Your task to perform on an android device: Do I have any events tomorrow? Image 0: 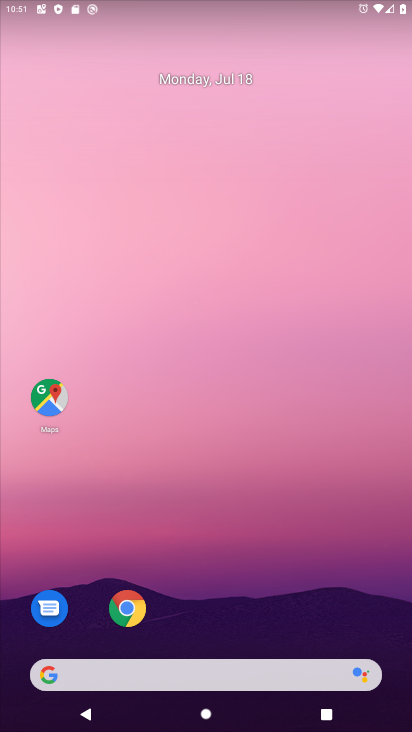
Step 0: drag from (263, 607) to (327, 188)
Your task to perform on an android device: Do I have any events tomorrow? Image 1: 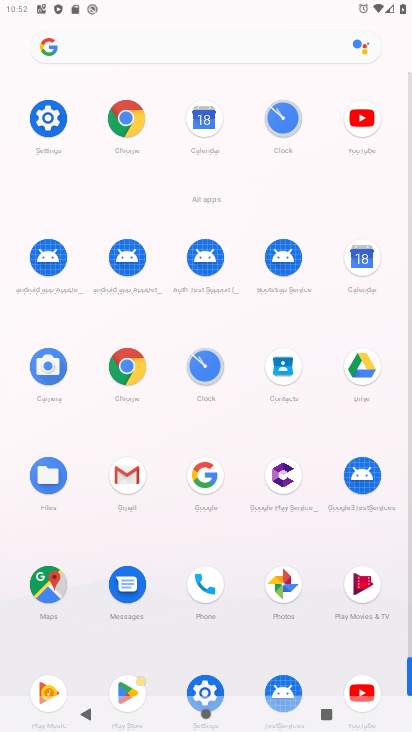
Step 1: click (371, 267)
Your task to perform on an android device: Do I have any events tomorrow? Image 2: 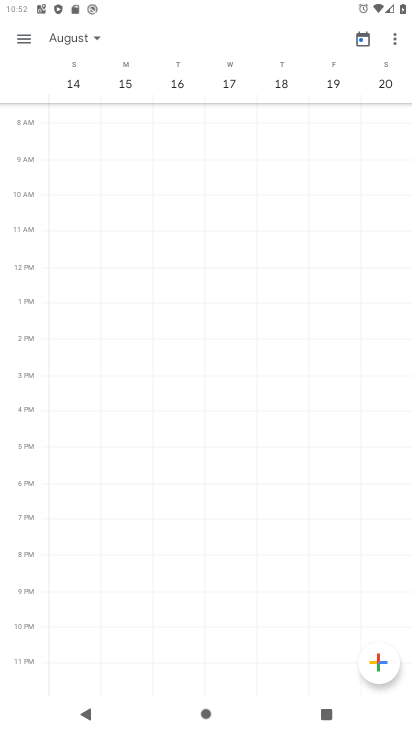
Step 2: click (81, 35)
Your task to perform on an android device: Do I have any events tomorrow? Image 3: 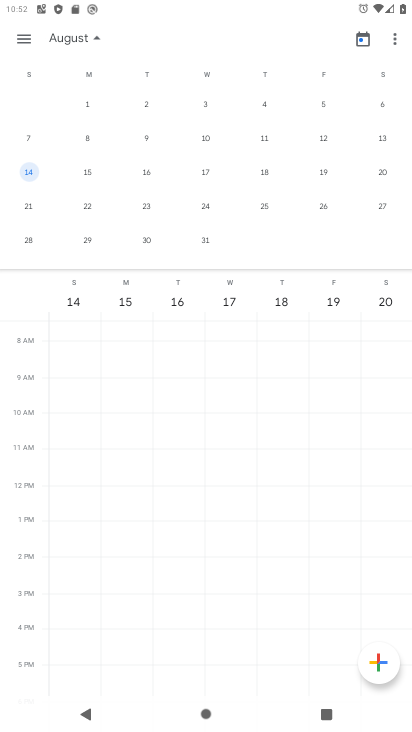
Step 3: drag from (69, 170) to (386, 284)
Your task to perform on an android device: Do I have any events tomorrow? Image 4: 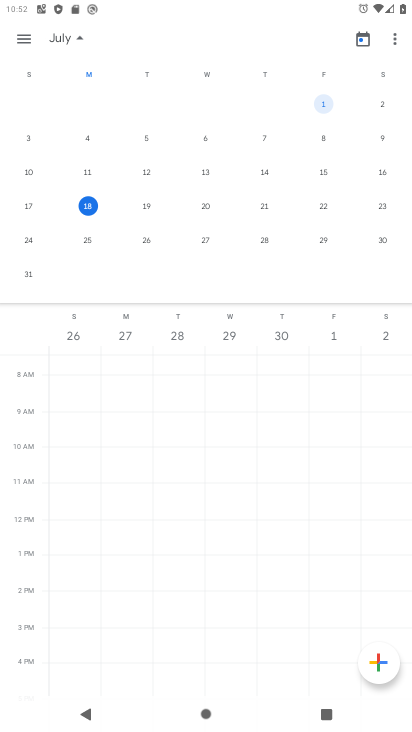
Step 4: click (87, 207)
Your task to perform on an android device: Do I have any events tomorrow? Image 5: 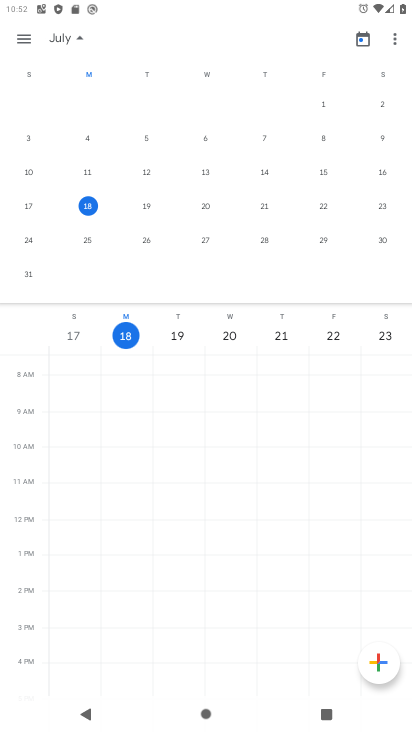
Step 5: click (28, 40)
Your task to perform on an android device: Do I have any events tomorrow? Image 6: 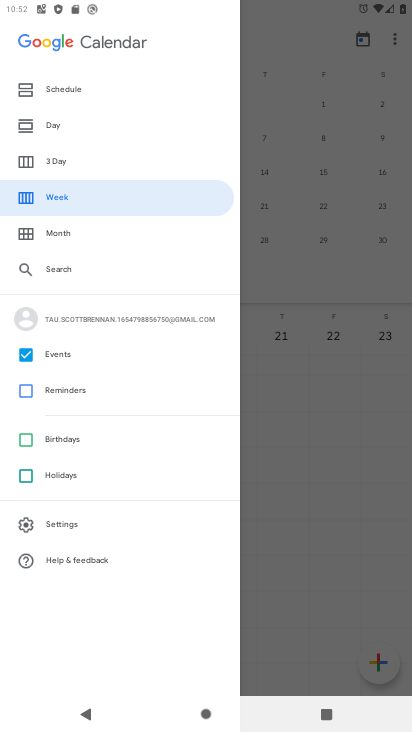
Step 6: click (71, 160)
Your task to perform on an android device: Do I have any events tomorrow? Image 7: 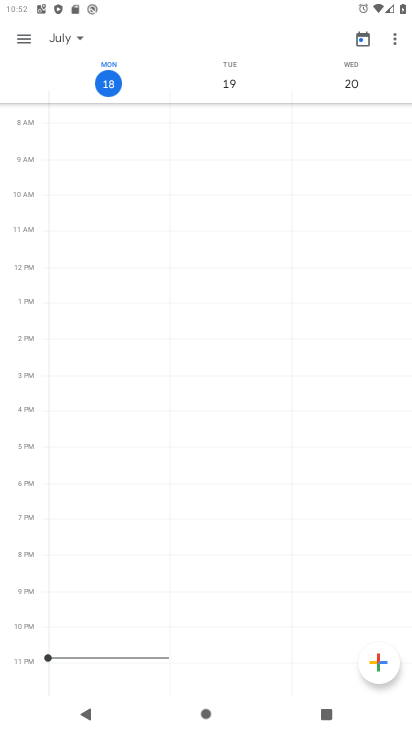
Step 7: task complete